Your task to perform on an android device: search for starred emails in the gmail app Image 0: 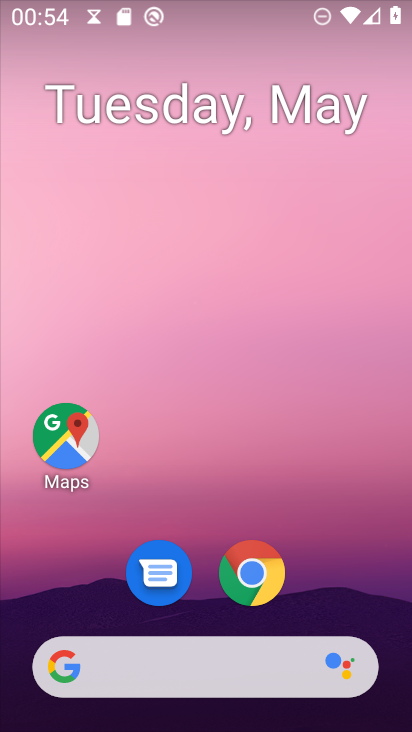
Step 0: drag from (338, 587) to (264, 38)
Your task to perform on an android device: search for starred emails in the gmail app Image 1: 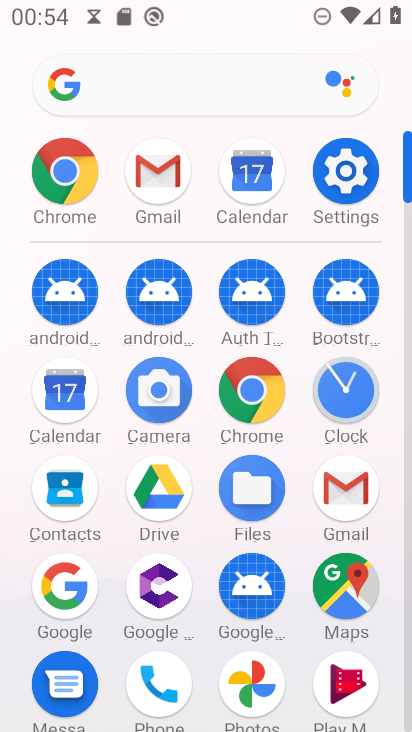
Step 1: click (152, 169)
Your task to perform on an android device: search for starred emails in the gmail app Image 2: 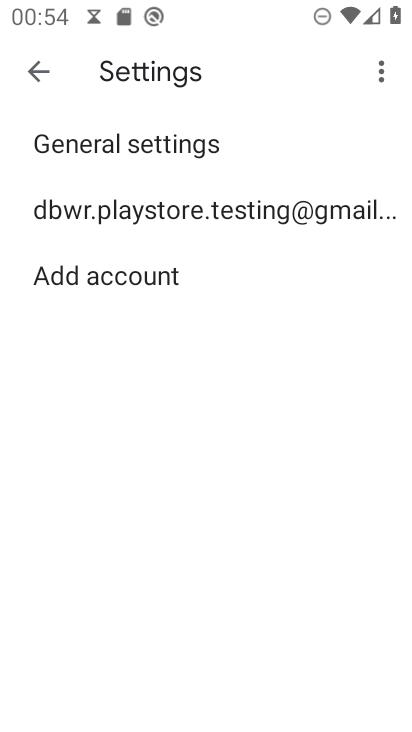
Step 2: press home button
Your task to perform on an android device: search for starred emails in the gmail app Image 3: 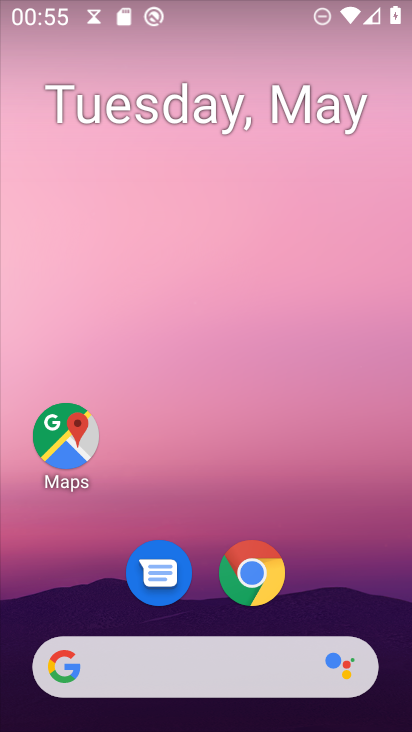
Step 3: drag from (342, 574) to (199, 58)
Your task to perform on an android device: search for starred emails in the gmail app Image 4: 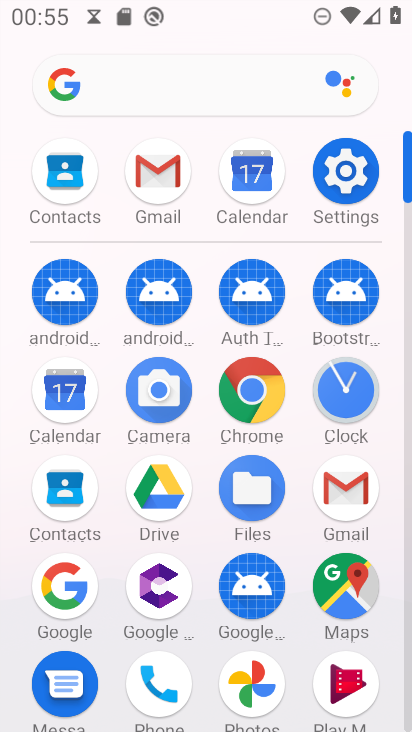
Step 4: click (166, 156)
Your task to perform on an android device: search for starred emails in the gmail app Image 5: 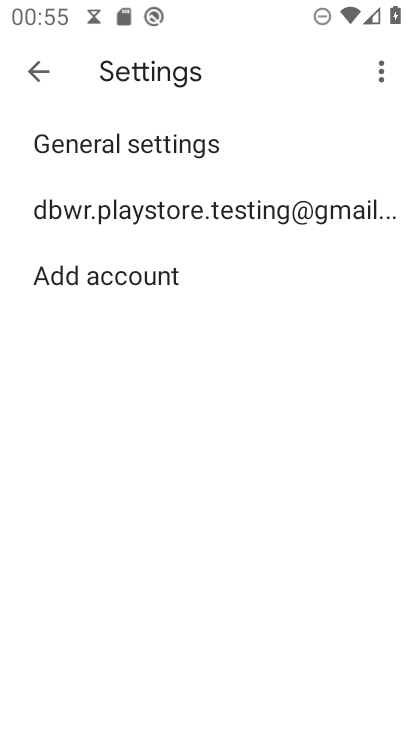
Step 5: click (23, 68)
Your task to perform on an android device: search for starred emails in the gmail app Image 6: 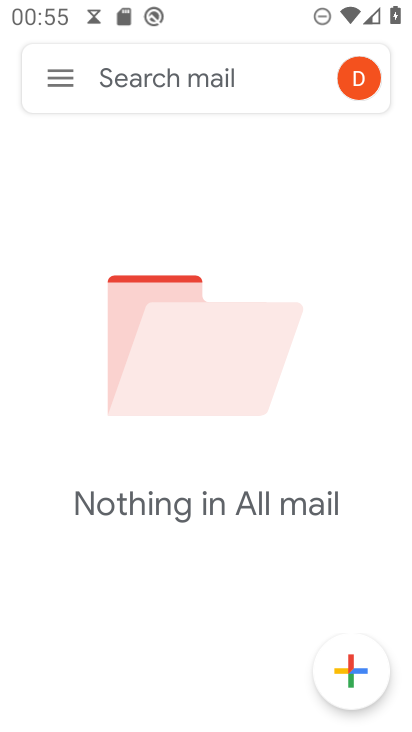
Step 6: click (228, 79)
Your task to perform on an android device: search for starred emails in the gmail app Image 7: 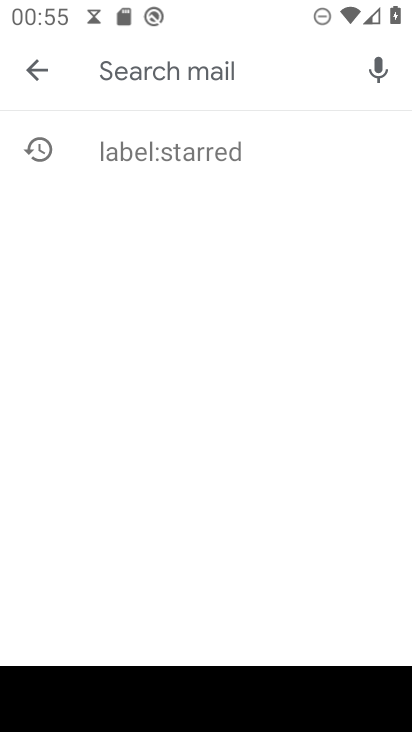
Step 7: click (213, 147)
Your task to perform on an android device: search for starred emails in the gmail app Image 8: 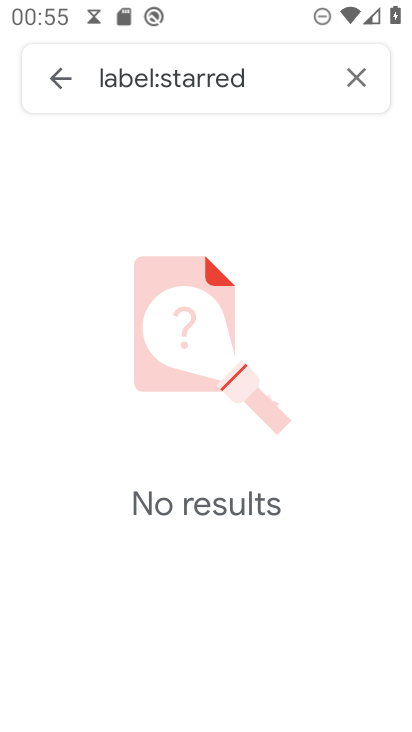
Step 8: task complete